Your task to perform on an android device: remove spam from my inbox in the gmail app Image 0: 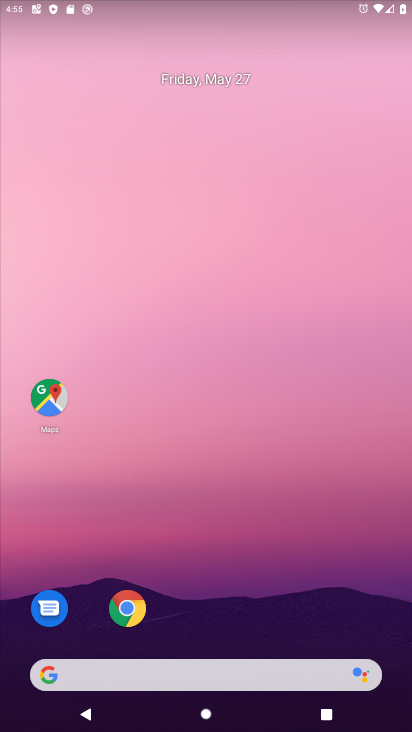
Step 0: drag from (195, 646) to (248, 222)
Your task to perform on an android device: remove spam from my inbox in the gmail app Image 1: 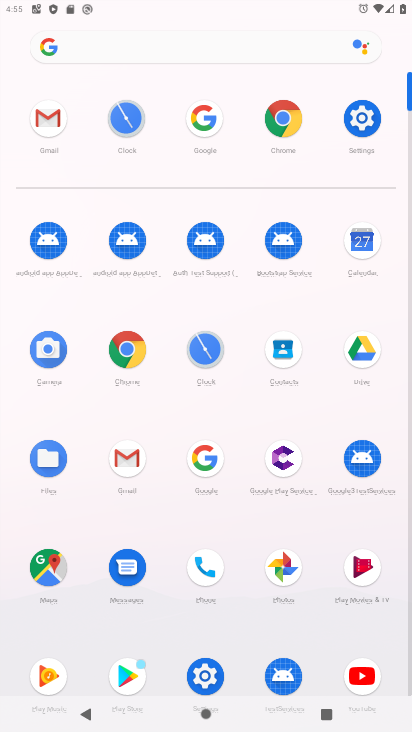
Step 1: click (115, 458)
Your task to perform on an android device: remove spam from my inbox in the gmail app Image 2: 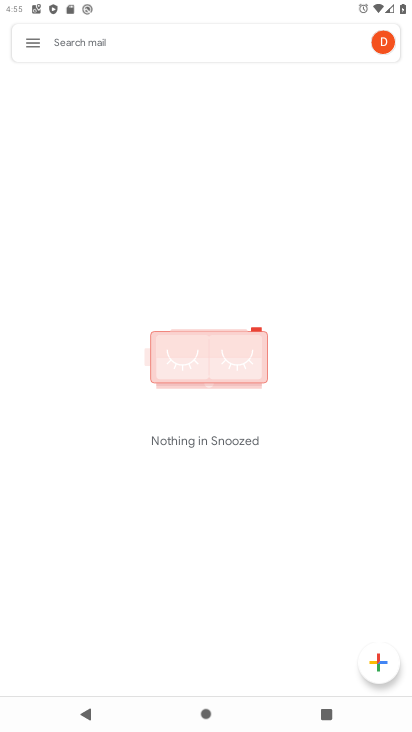
Step 2: click (32, 22)
Your task to perform on an android device: remove spam from my inbox in the gmail app Image 3: 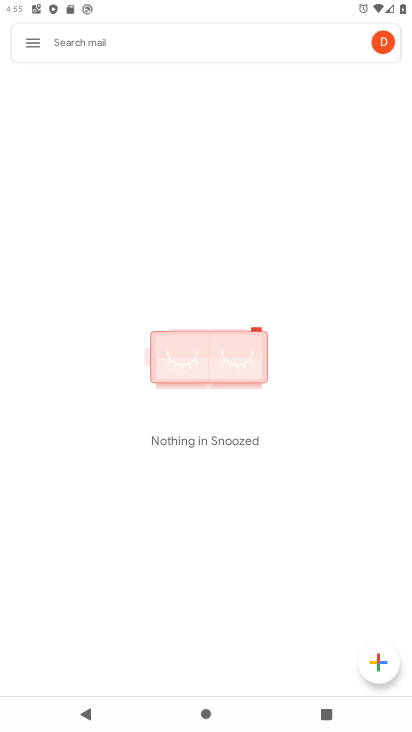
Step 3: click (34, 42)
Your task to perform on an android device: remove spam from my inbox in the gmail app Image 4: 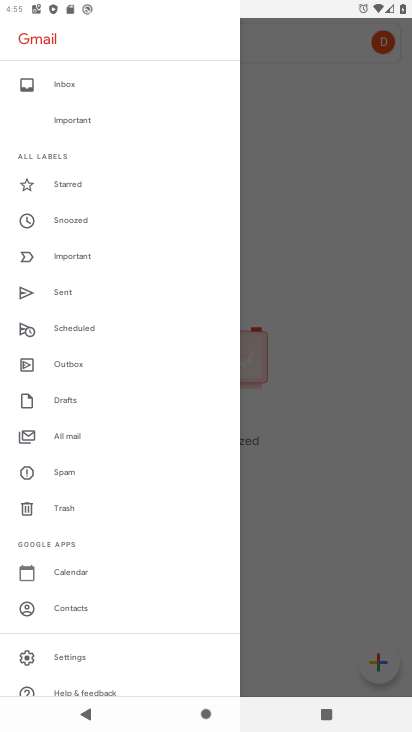
Step 4: click (65, 78)
Your task to perform on an android device: remove spam from my inbox in the gmail app Image 5: 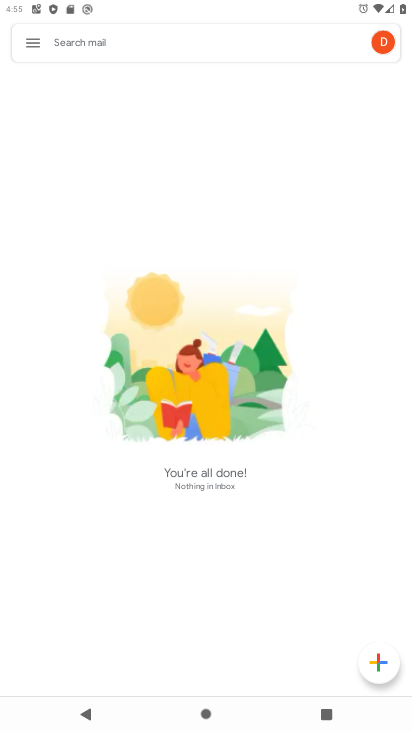
Step 5: task complete